Your task to perform on an android device: Add energizer triple a to the cart on ebay.com, then select checkout. Image 0: 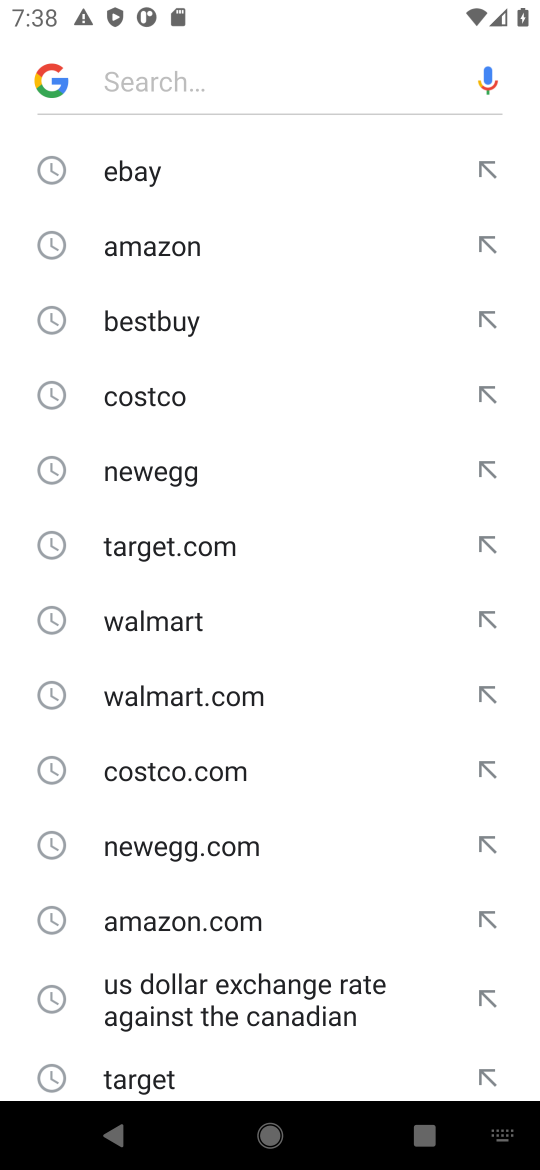
Step 0: click (147, 181)
Your task to perform on an android device: Add energizer triple a to the cart on ebay.com, then select checkout. Image 1: 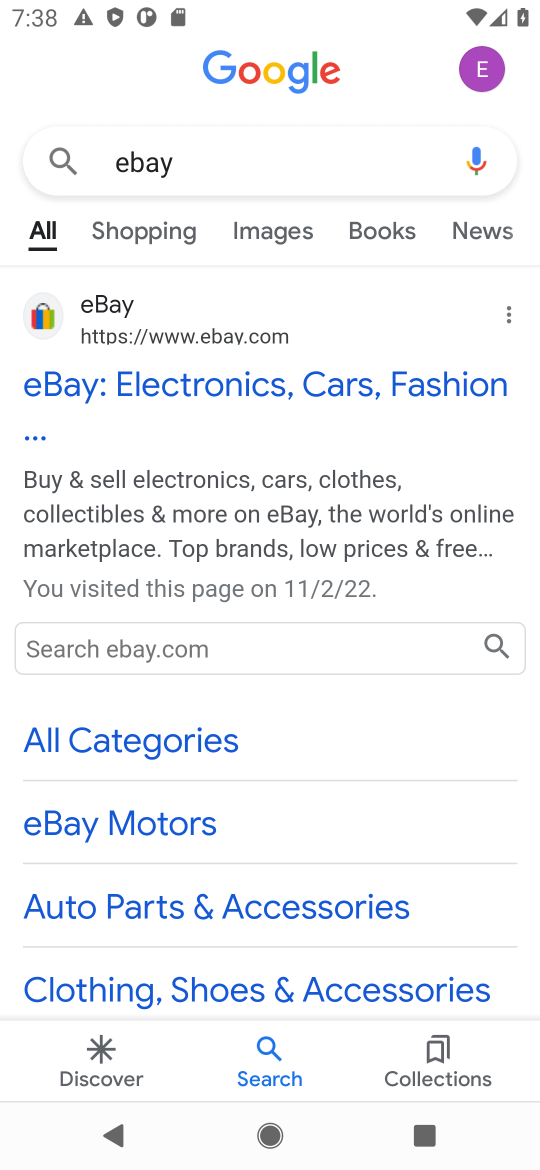
Step 1: click (104, 387)
Your task to perform on an android device: Add energizer triple a to the cart on ebay.com, then select checkout. Image 2: 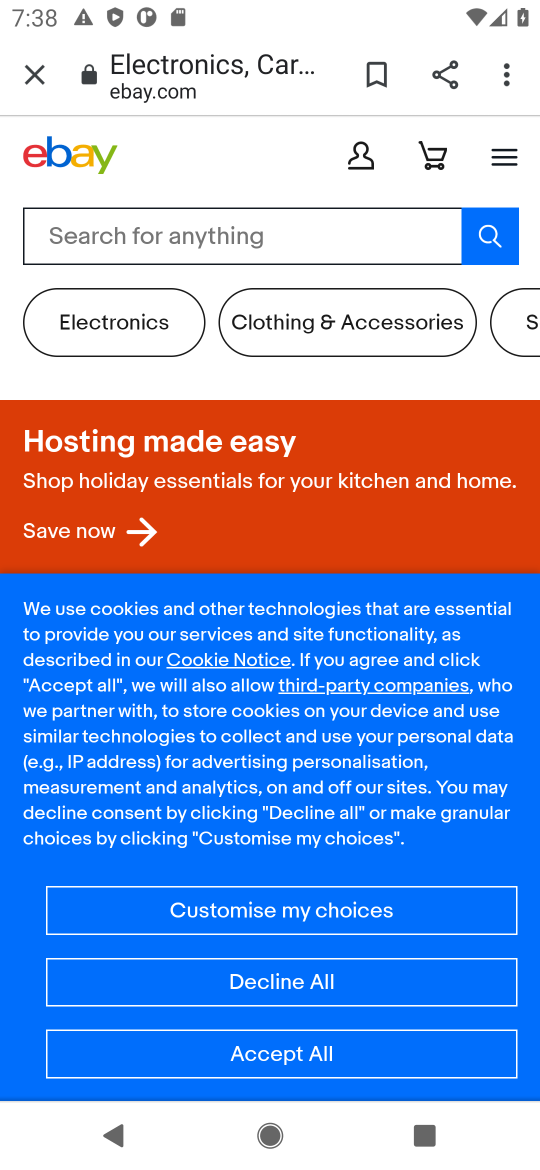
Step 2: click (253, 1051)
Your task to perform on an android device: Add energizer triple a to the cart on ebay.com, then select checkout. Image 3: 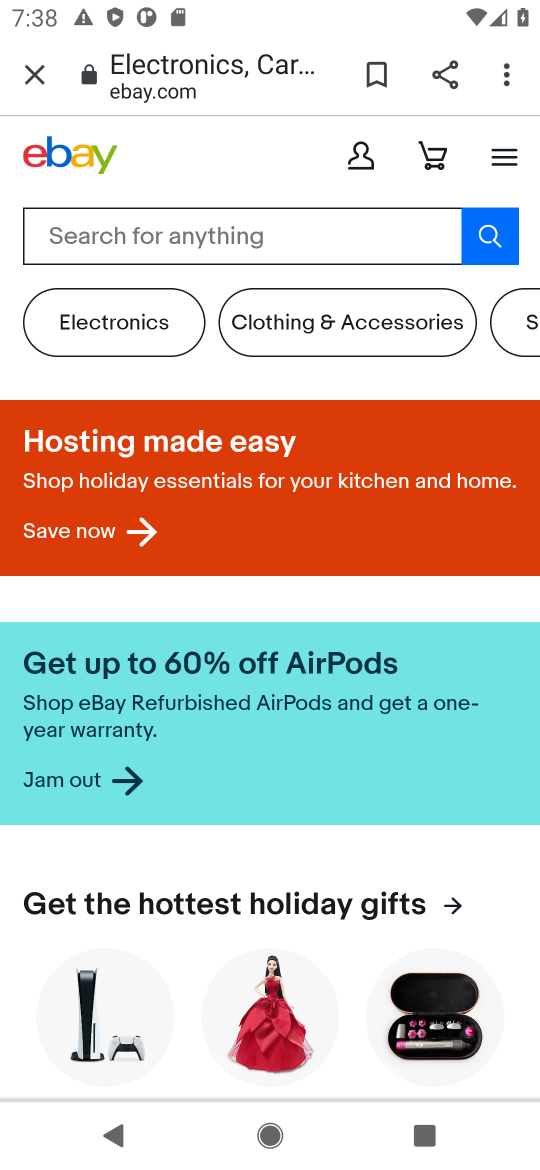
Step 3: task complete